Your task to perform on an android device: toggle notifications settings in the gmail app Image 0: 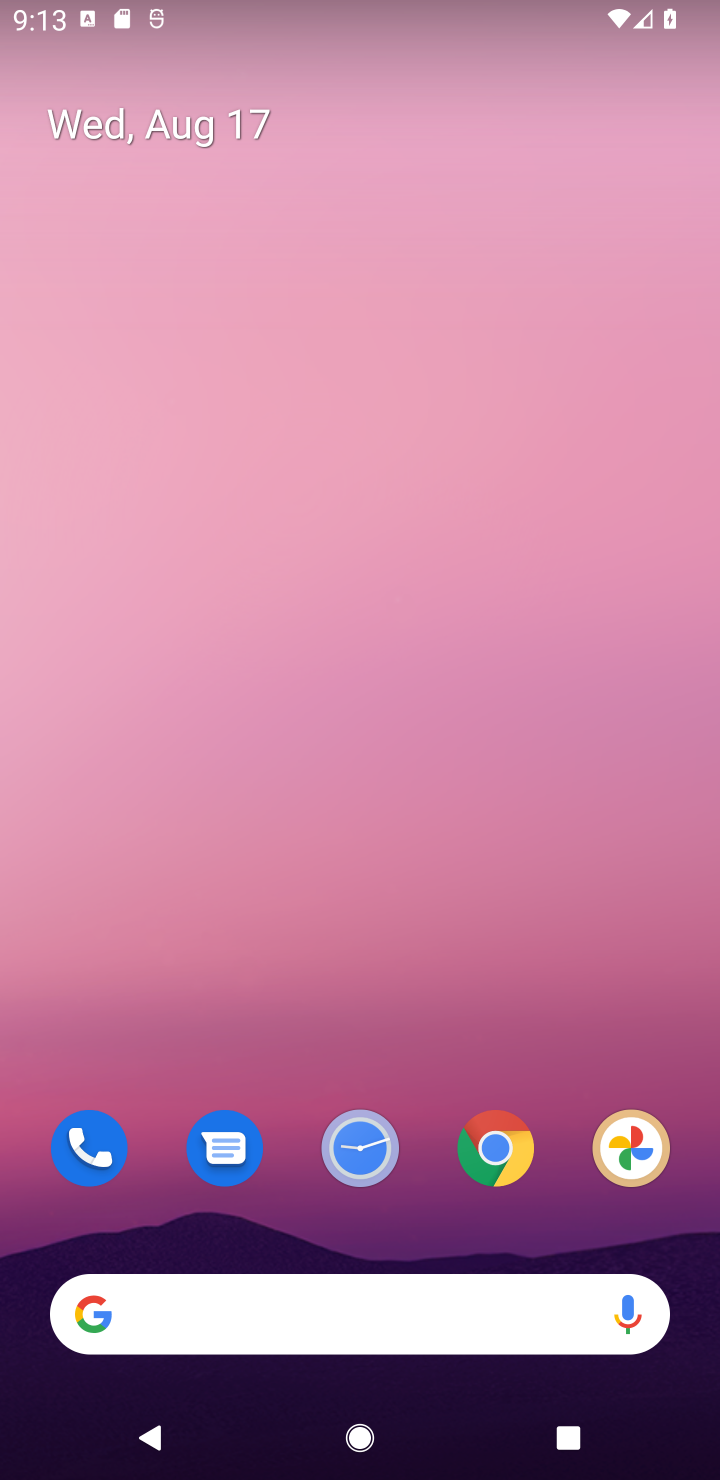
Step 0: drag from (545, 1222) to (627, 393)
Your task to perform on an android device: toggle notifications settings in the gmail app Image 1: 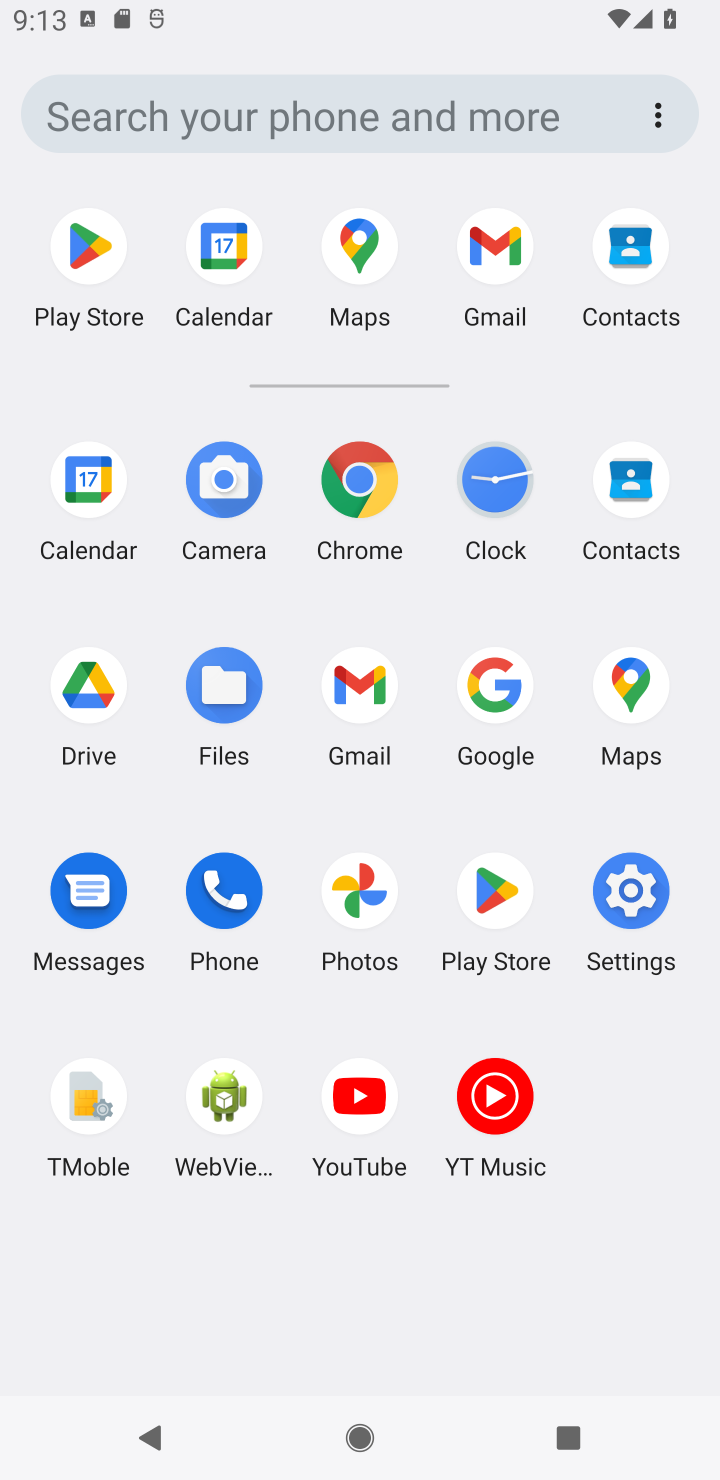
Step 1: click (364, 684)
Your task to perform on an android device: toggle notifications settings in the gmail app Image 2: 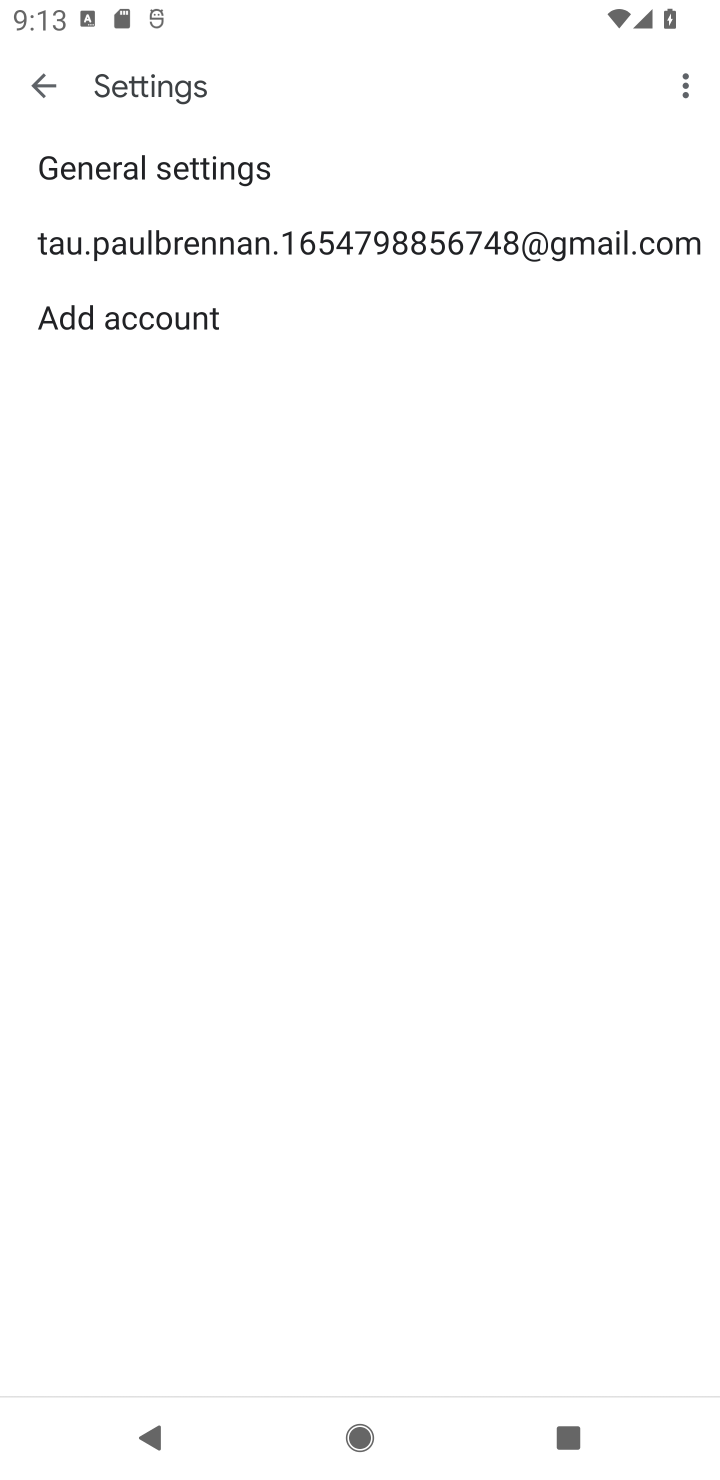
Step 2: click (297, 239)
Your task to perform on an android device: toggle notifications settings in the gmail app Image 3: 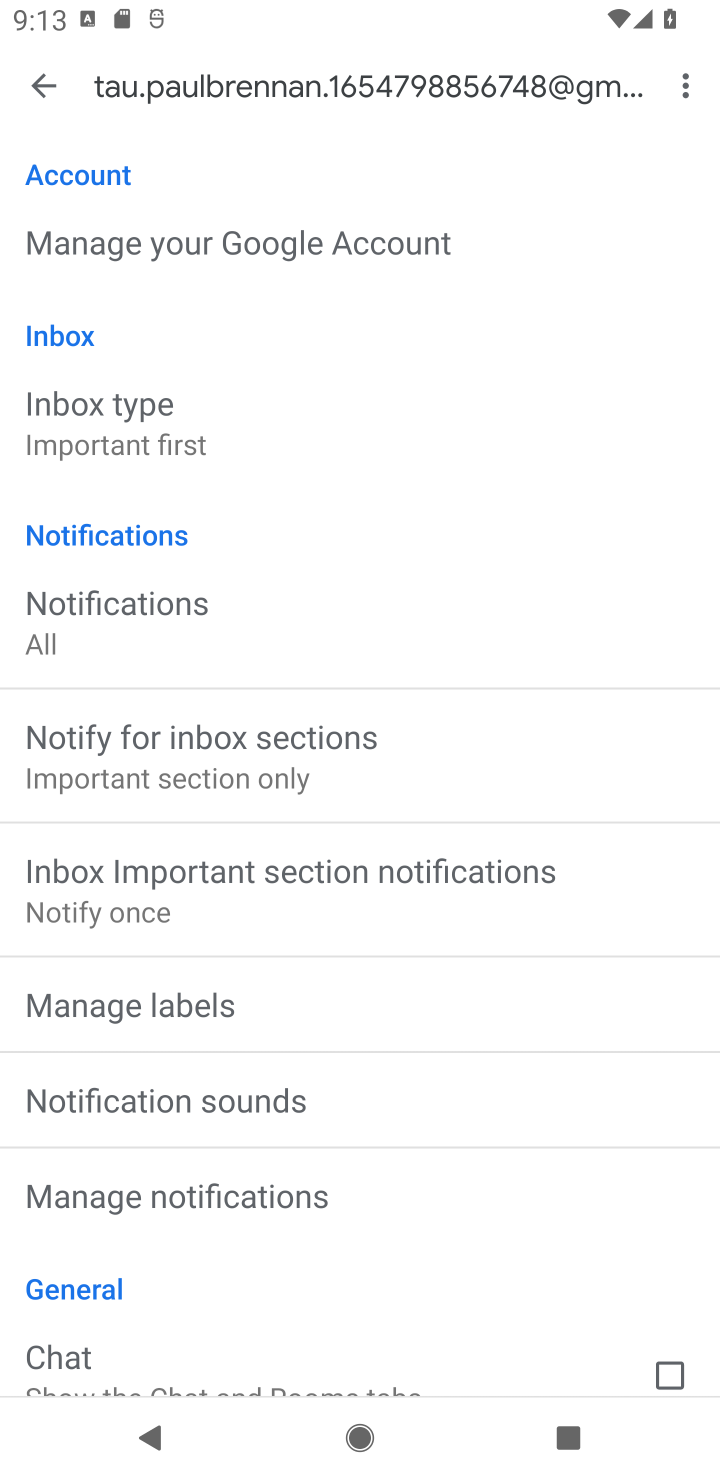
Step 3: click (219, 1187)
Your task to perform on an android device: toggle notifications settings in the gmail app Image 4: 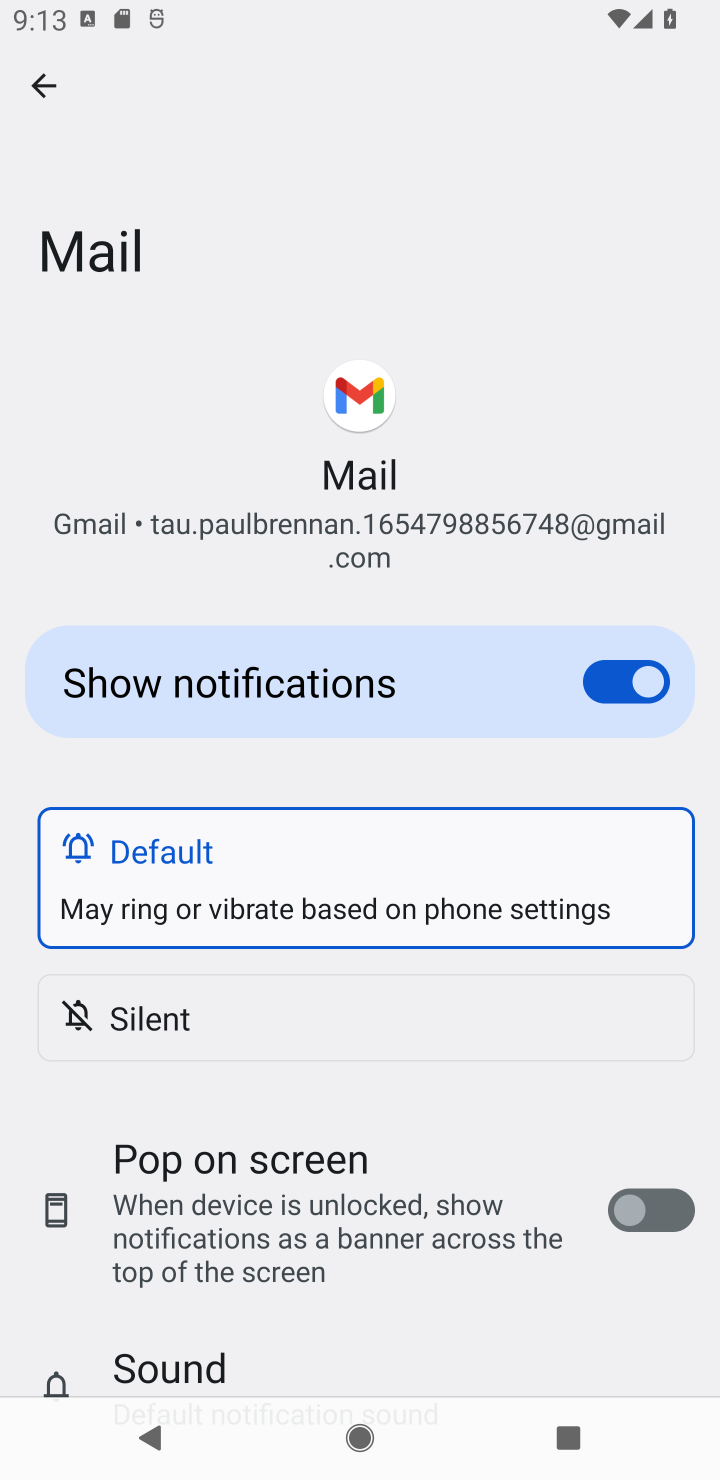
Step 4: click (614, 696)
Your task to perform on an android device: toggle notifications settings in the gmail app Image 5: 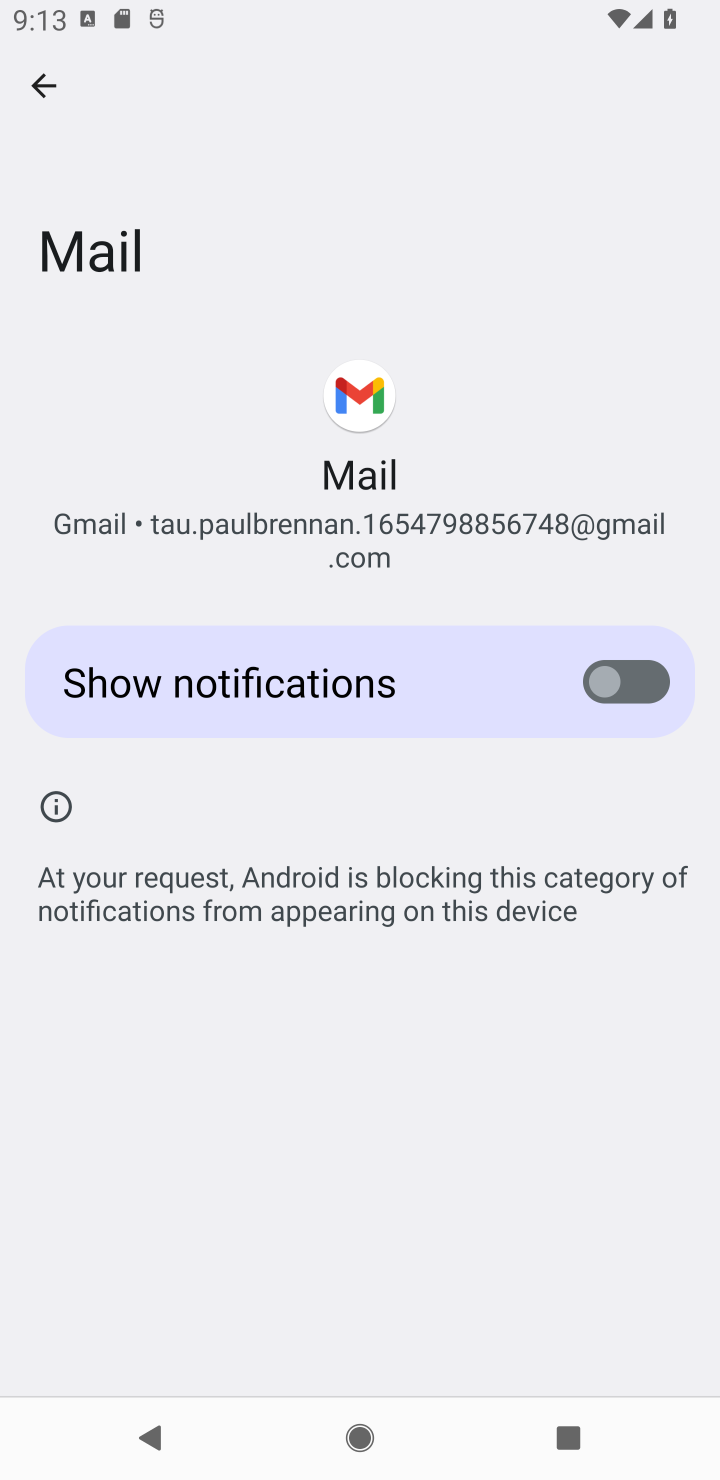
Step 5: task complete